Your task to perform on an android device: turn on bluetooth scan Image 0: 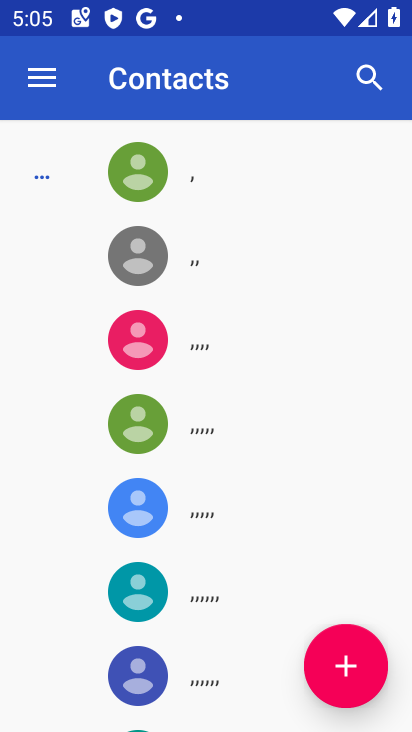
Step 0: press home button
Your task to perform on an android device: turn on bluetooth scan Image 1: 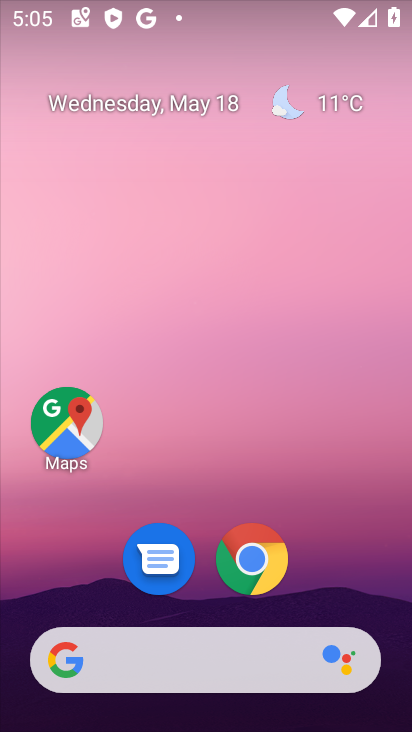
Step 1: drag from (206, 545) to (252, 66)
Your task to perform on an android device: turn on bluetooth scan Image 2: 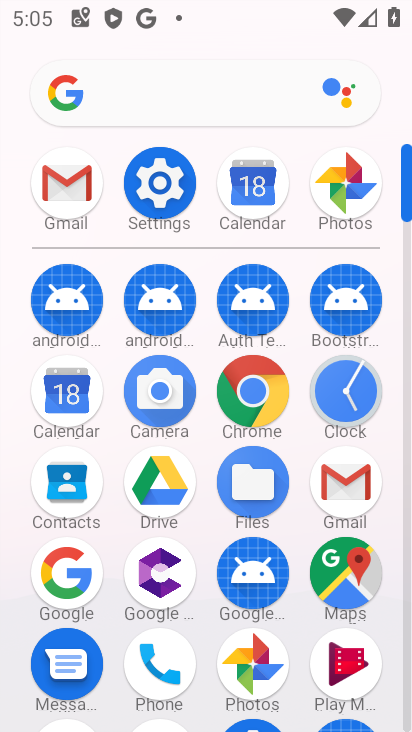
Step 2: click (148, 191)
Your task to perform on an android device: turn on bluetooth scan Image 3: 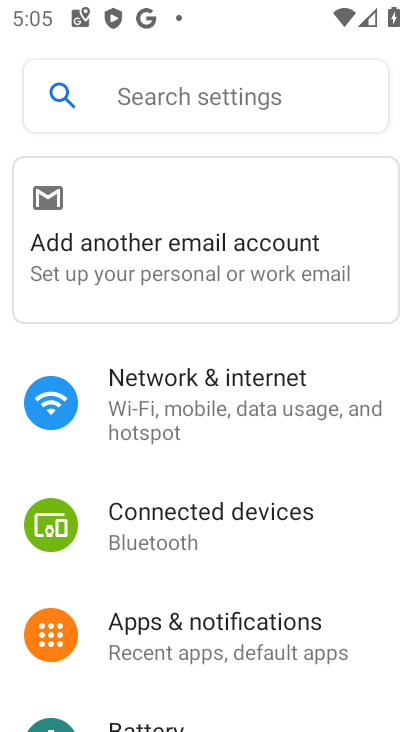
Step 3: click (185, 523)
Your task to perform on an android device: turn on bluetooth scan Image 4: 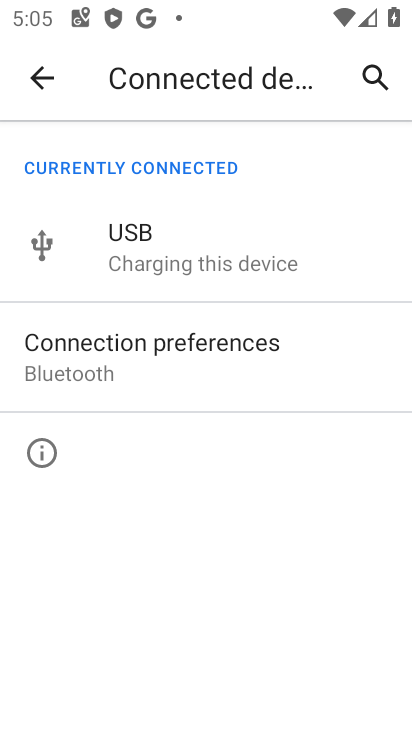
Step 4: click (124, 361)
Your task to perform on an android device: turn on bluetooth scan Image 5: 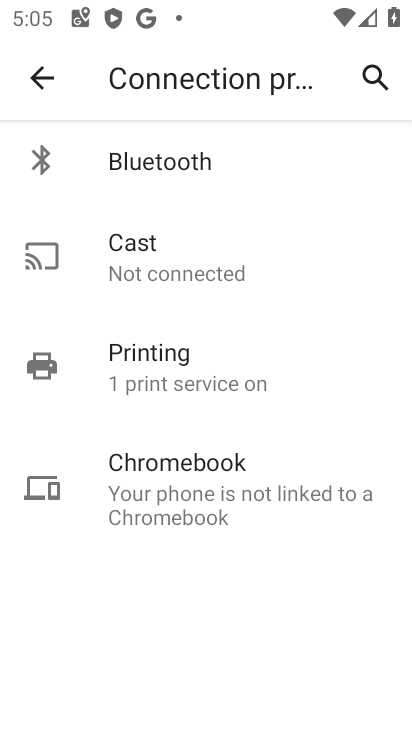
Step 5: click (133, 154)
Your task to perform on an android device: turn on bluetooth scan Image 6: 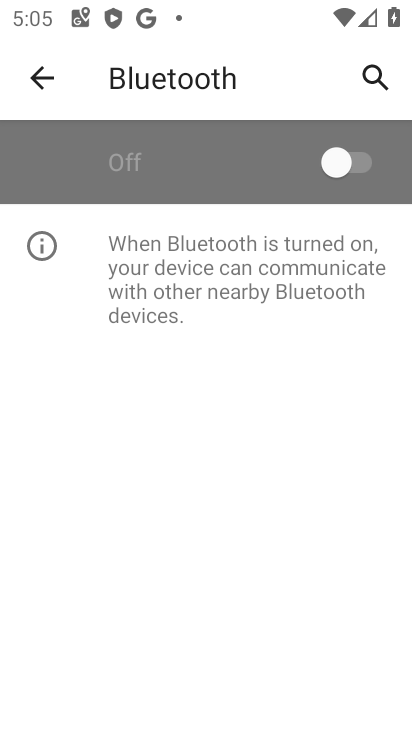
Step 6: click (343, 164)
Your task to perform on an android device: turn on bluetooth scan Image 7: 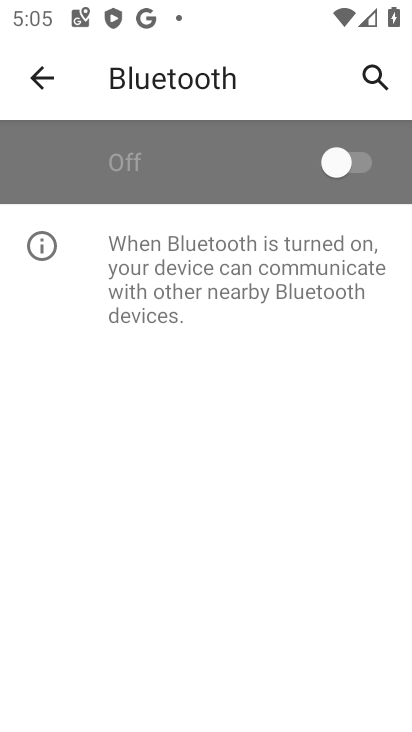
Step 7: task complete